Your task to perform on an android device: Show me the alarms in the clock app Image 0: 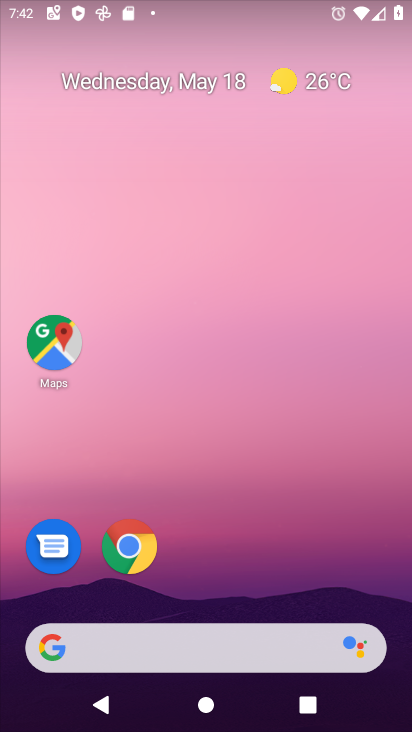
Step 0: drag from (379, 614) to (304, 166)
Your task to perform on an android device: Show me the alarms in the clock app Image 1: 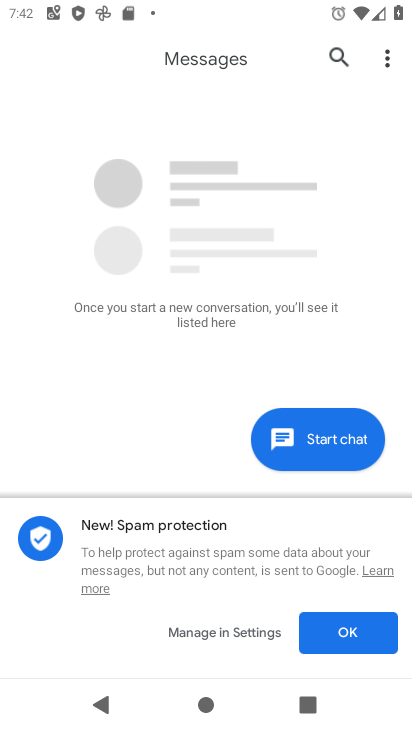
Step 1: press home button
Your task to perform on an android device: Show me the alarms in the clock app Image 2: 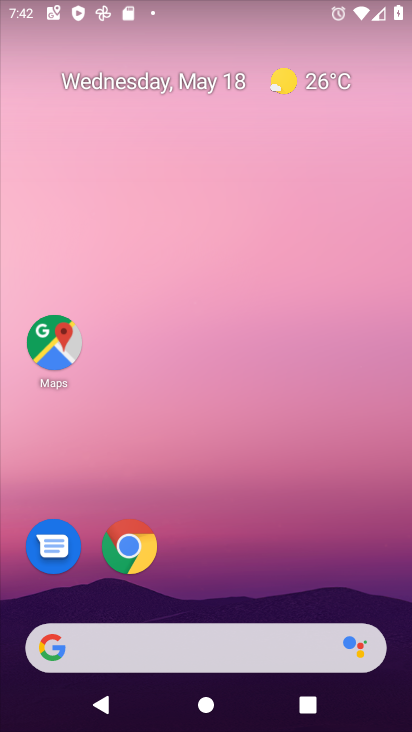
Step 2: drag from (391, 667) to (362, 186)
Your task to perform on an android device: Show me the alarms in the clock app Image 3: 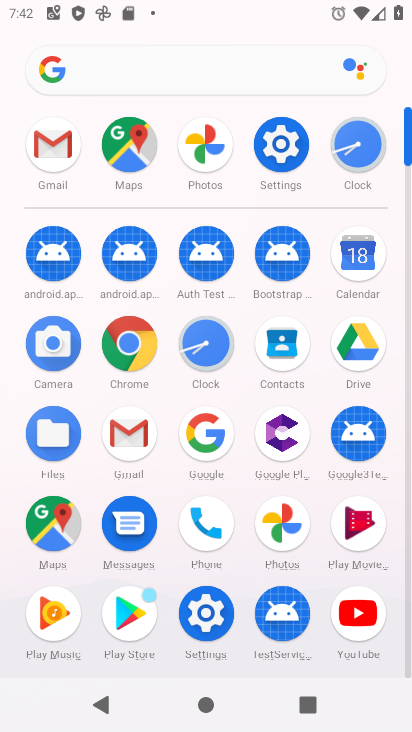
Step 3: click (212, 355)
Your task to perform on an android device: Show me the alarms in the clock app Image 4: 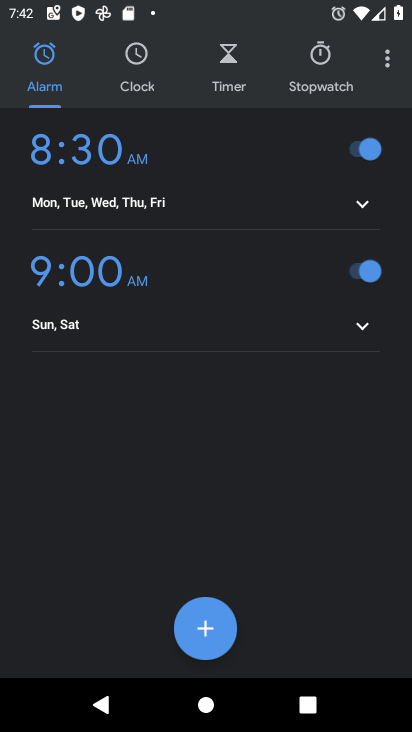
Step 4: task complete